Your task to perform on an android device: Go to Android settings Image 0: 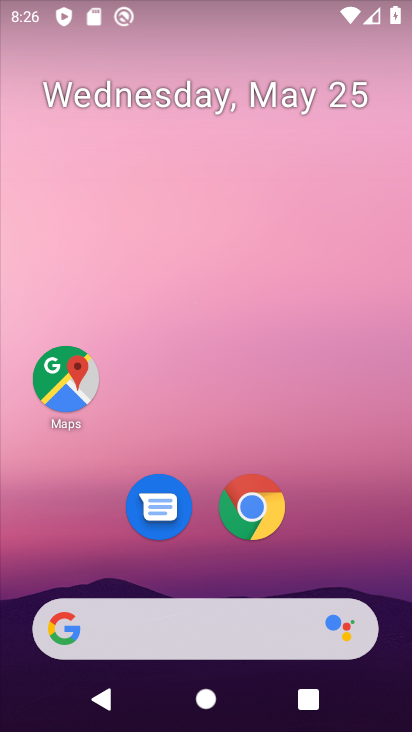
Step 0: click (49, 66)
Your task to perform on an android device: Go to Android settings Image 1: 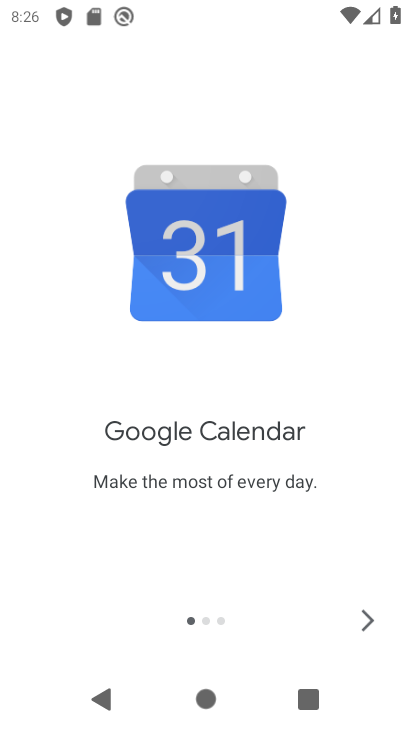
Step 1: drag from (211, 575) to (252, 105)
Your task to perform on an android device: Go to Android settings Image 2: 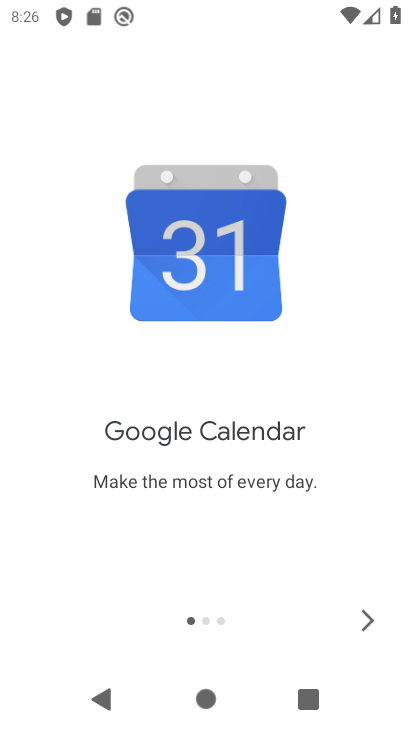
Step 2: press home button
Your task to perform on an android device: Go to Android settings Image 3: 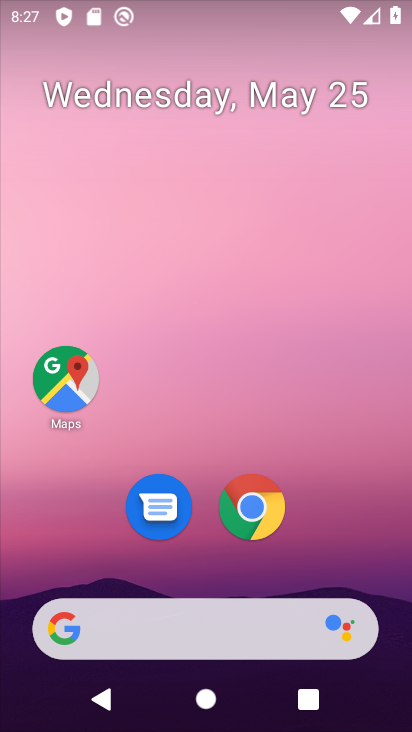
Step 3: drag from (187, 571) to (202, 0)
Your task to perform on an android device: Go to Android settings Image 4: 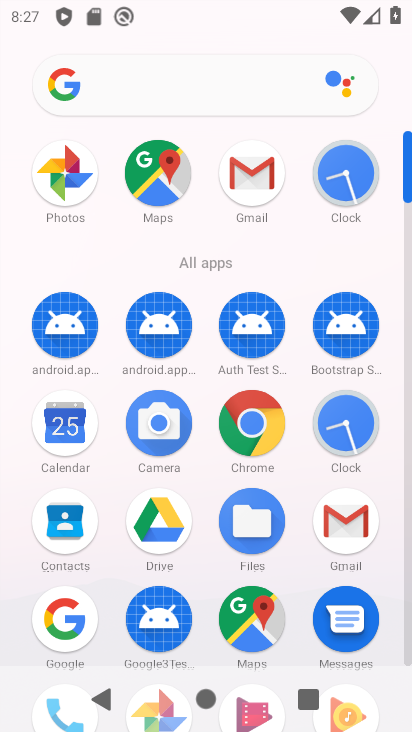
Step 4: drag from (273, 335) to (218, 13)
Your task to perform on an android device: Go to Android settings Image 5: 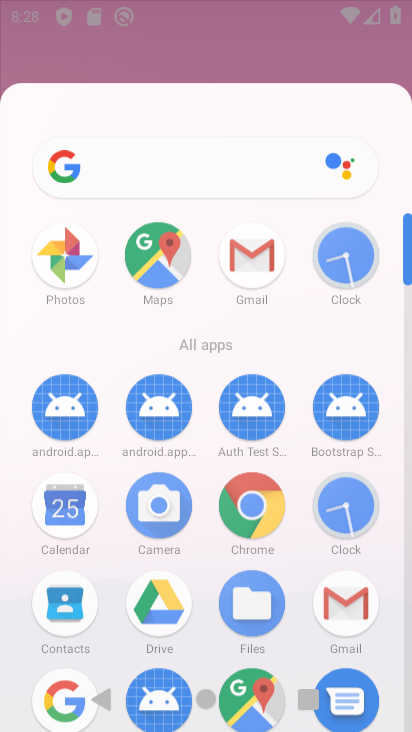
Step 5: click (402, 659)
Your task to perform on an android device: Go to Android settings Image 6: 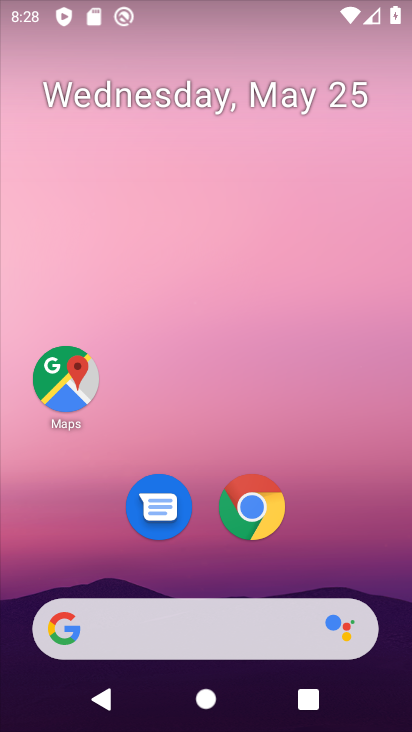
Step 6: drag from (314, 555) to (281, 180)
Your task to perform on an android device: Go to Android settings Image 7: 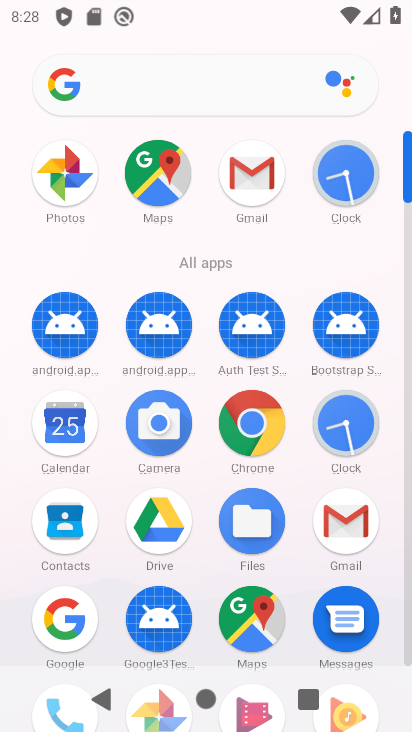
Step 7: click (403, 653)
Your task to perform on an android device: Go to Android settings Image 8: 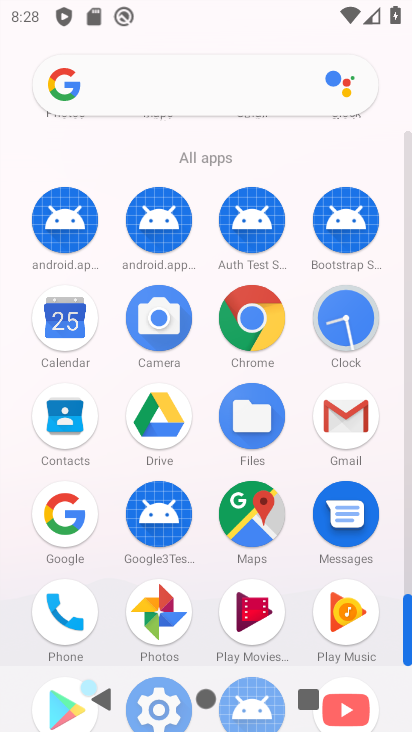
Step 8: drag from (118, 644) to (93, 355)
Your task to perform on an android device: Go to Android settings Image 9: 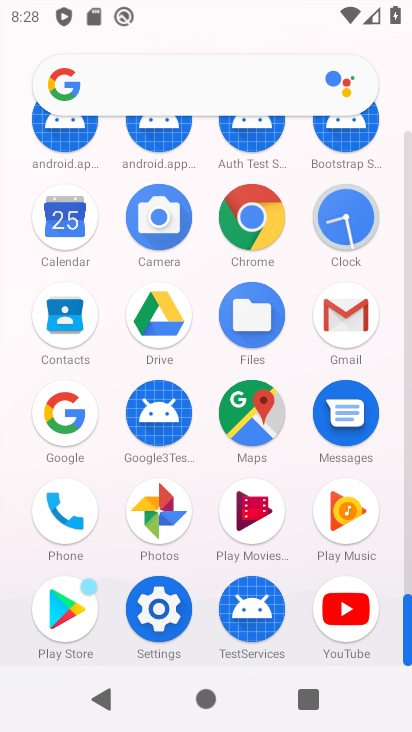
Step 9: click (166, 616)
Your task to perform on an android device: Go to Android settings Image 10: 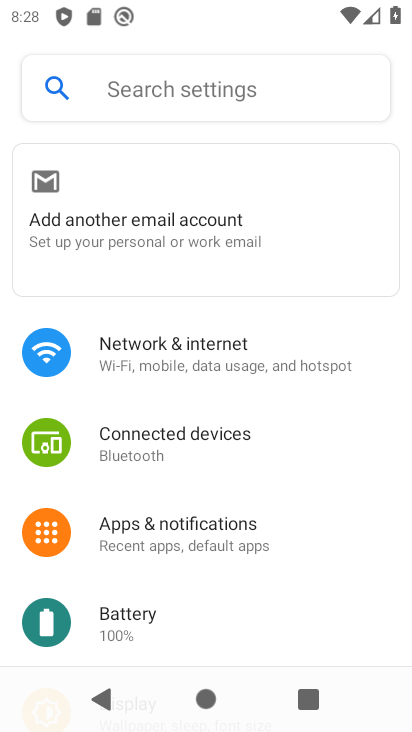
Step 10: task complete